Your task to perform on an android device: Open Maps and search for coffee Image 0: 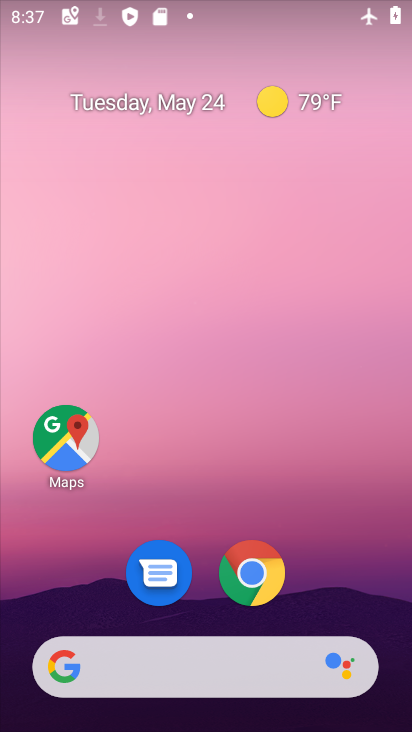
Step 0: drag from (325, 580) to (198, 133)
Your task to perform on an android device: Open Maps and search for coffee Image 1: 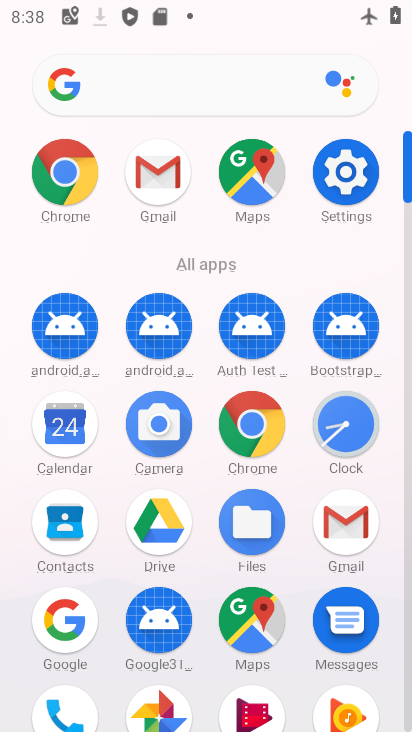
Step 1: click (244, 174)
Your task to perform on an android device: Open Maps and search for coffee Image 2: 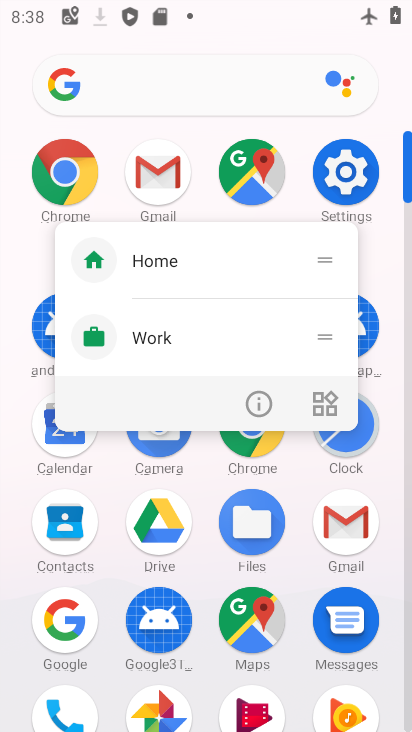
Step 2: click (245, 168)
Your task to perform on an android device: Open Maps and search for coffee Image 3: 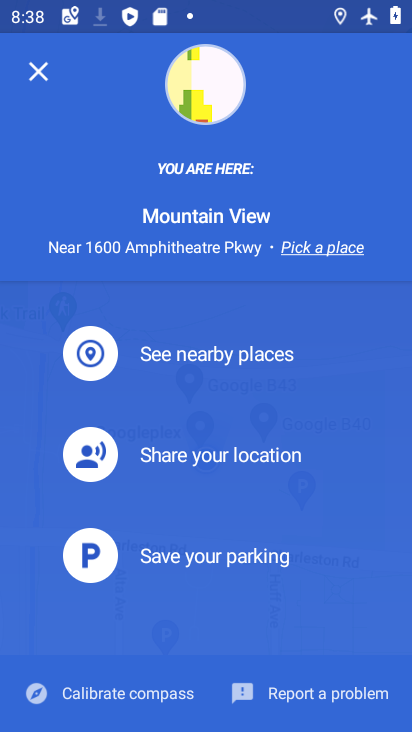
Step 3: click (36, 58)
Your task to perform on an android device: Open Maps and search for coffee Image 4: 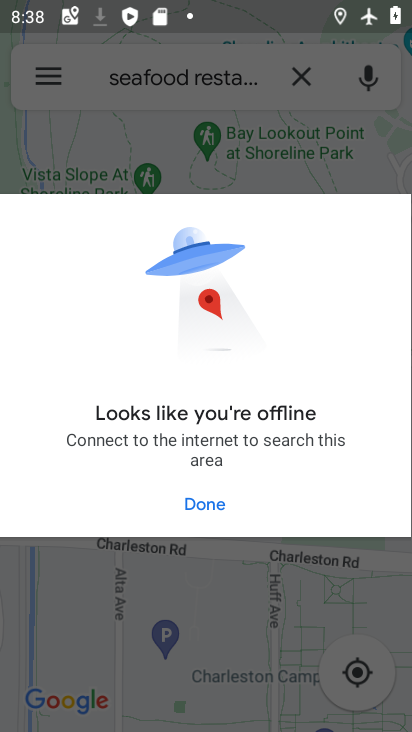
Step 4: task complete